Your task to perform on an android device: Go to network settings Image 0: 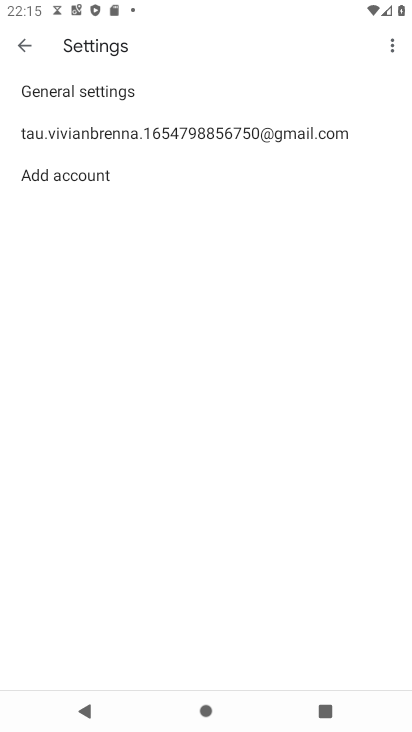
Step 0: press home button
Your task to perform on an android device: Go to network settings Image 1: 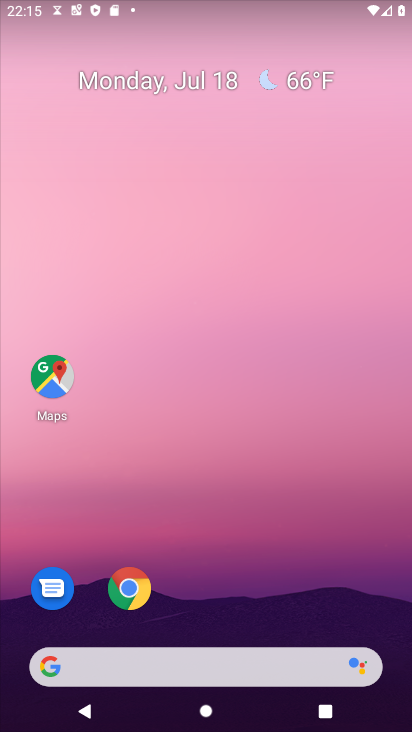
Step 1: drag from (159, 646) to (341, 57)
Your task to perform on an android device: Go to network settings Image 2: 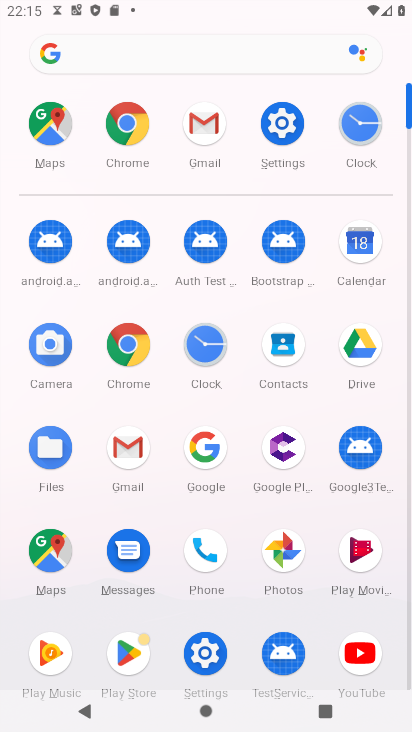
Step 2: click (280, 124)
Your task to perform on an android device: Go to network settings Image 3: 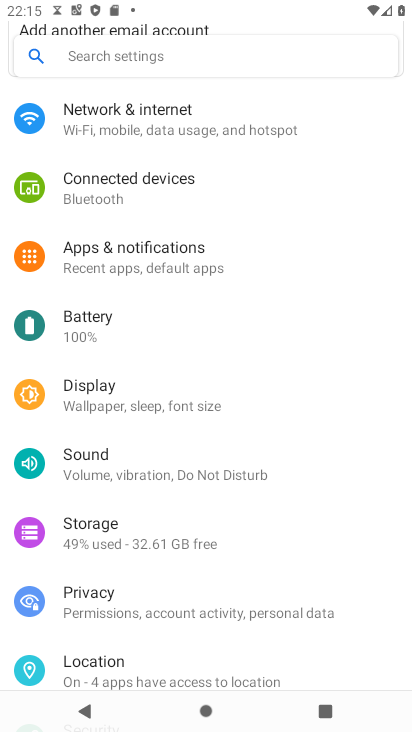
Step 3: click (167, 117)
Your task to perform on an android device: Go to network settings Image 4: 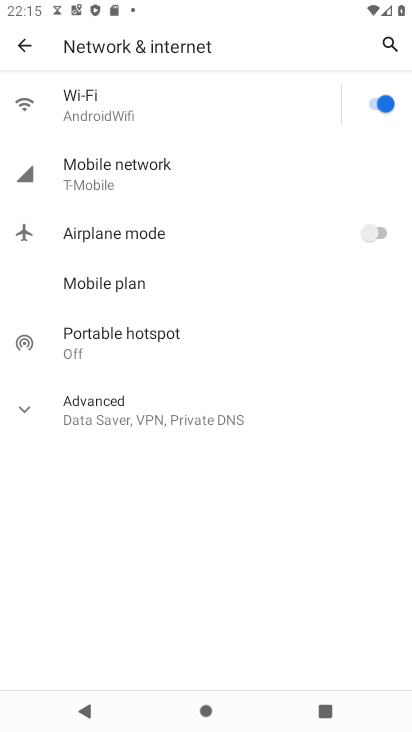
Step 4: click (144, 168)
Your task to perform on an android device: Go to network settings Image 5: 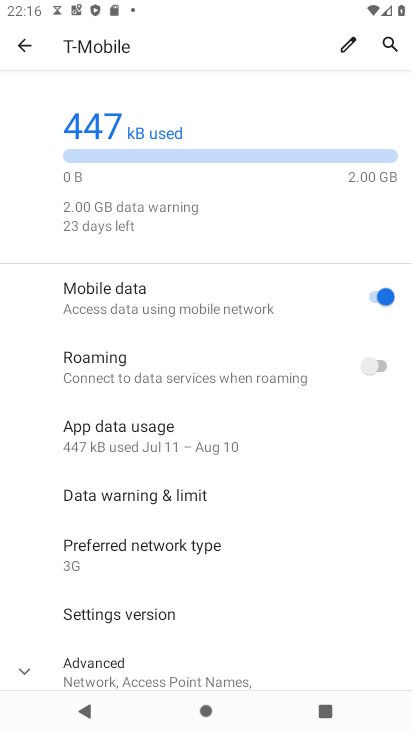
Step 5: task complete